Your task to perform on an android device: Open the calendar and show me this week's events Image 0: 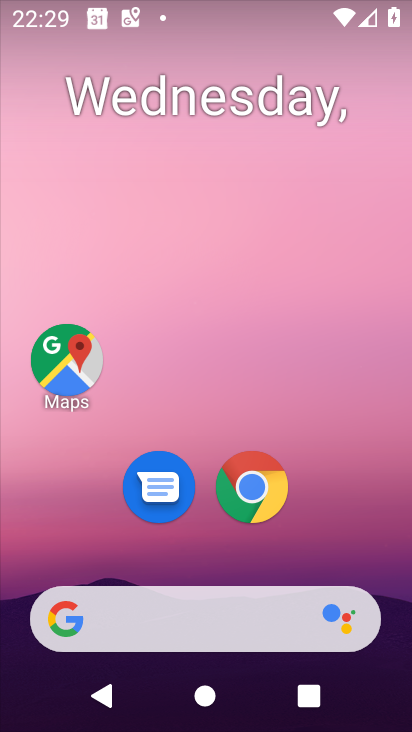
Step 0: drag from (167, 709) to (250, 13)
Your task to perform on an android device: Open the calendar and show me this week's events Image 1: 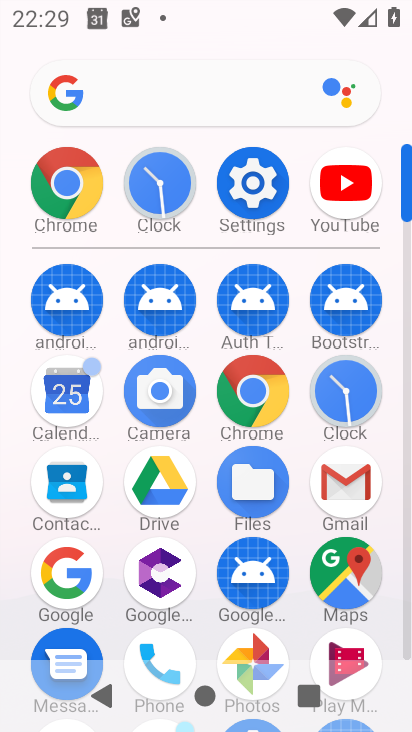
Step 1: click (57, 414)
Your task to perform on an android device: Open the calendar and show me this week's events Image 2: 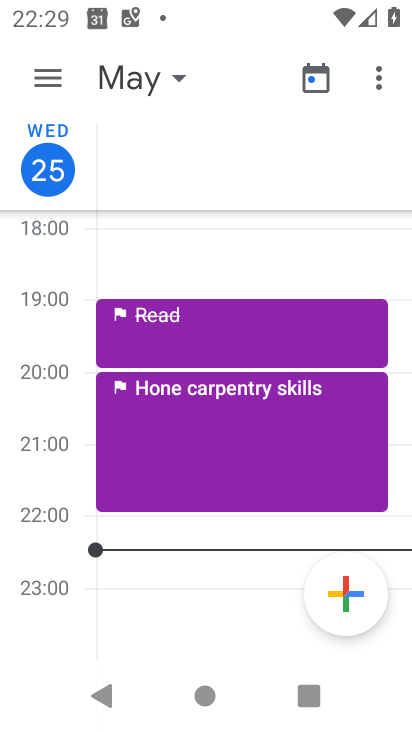
Step 2: click (139, 76)
Your task to perform on an android device: Open the calendar and show me this week's events Image 3: 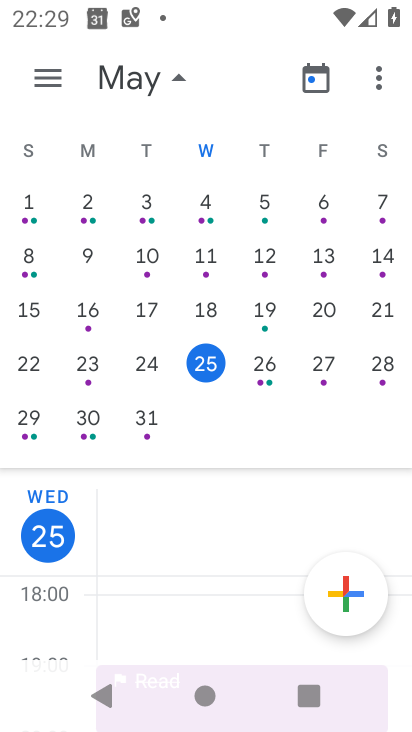
Step 3: task complete